Your task to perform on an android device: remove spam from my inbox in the gmail app Image 0: 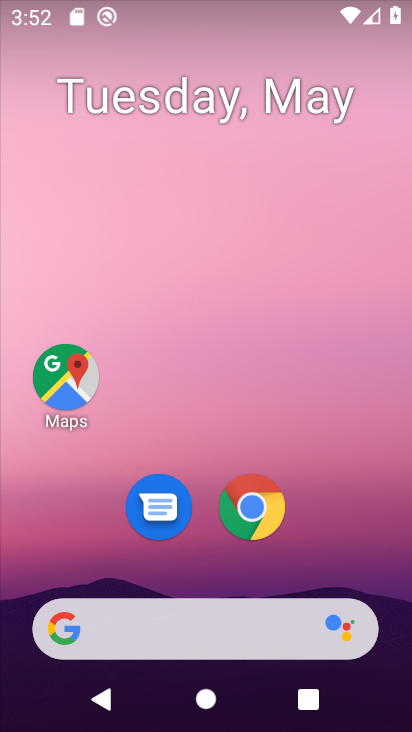
Step 0: drag from (206, 558) to (314, 37)
Your task to perform on an android device: remove spam from my inbox in the gmail app Image 1: 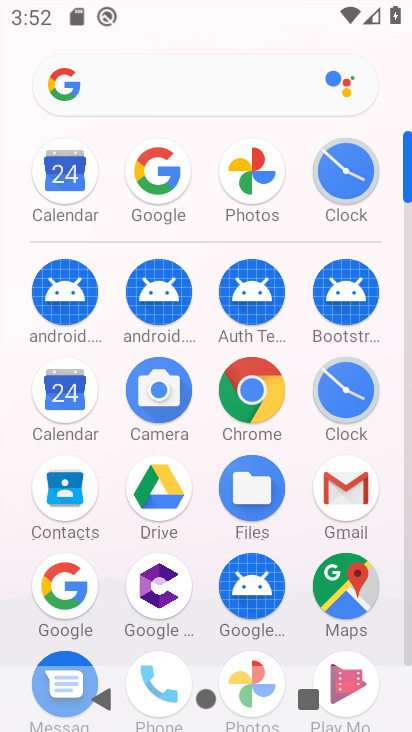
Step 1: click (353, 482)
Your task to perform on an android device: remove spam from my inbox in the gmail app Image 2: 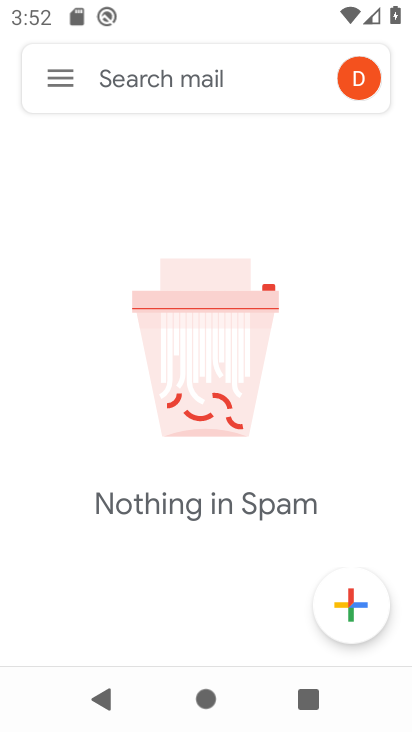
Step 2: click (49, 93)
Your task to perform on an android device: remove spam from my inbox in the gmail app Image 3: 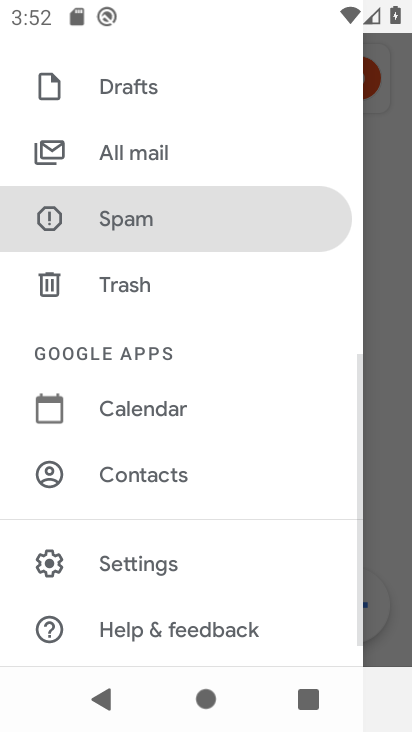
Step 3: click (130, 223)
Your task to perform on an android device: remove spam from my inbox in the gmail app Image 4: 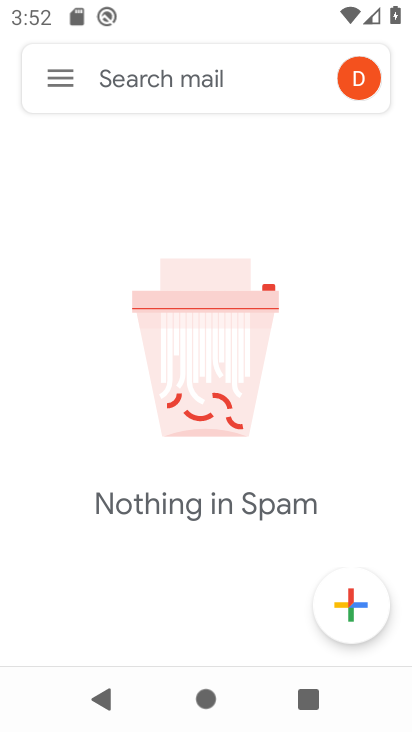
Step 4: task complete